Your task to perform on an android device: see tabs open on other devices in the chrome app Image 0: 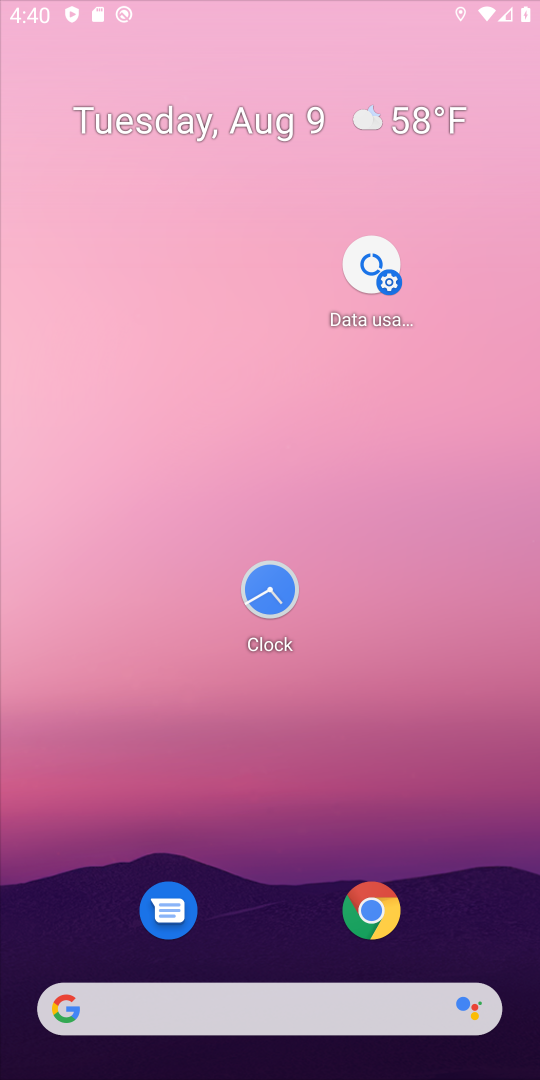
Step 0: drag from (224, 119) to (261, 80)
Your task to perform on an android device: see tabs open on other devices in the chrome app Image 1: 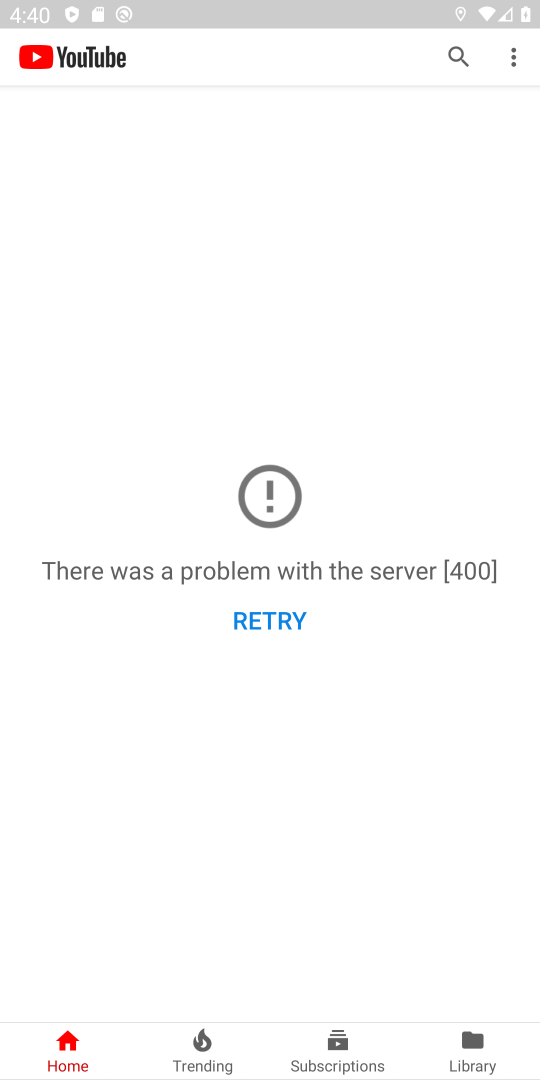
Step 1: drag from (299, 759) to (264, 128)
Your task to perform on an android device: see tabs open on other devices in the chrome app Image 2: 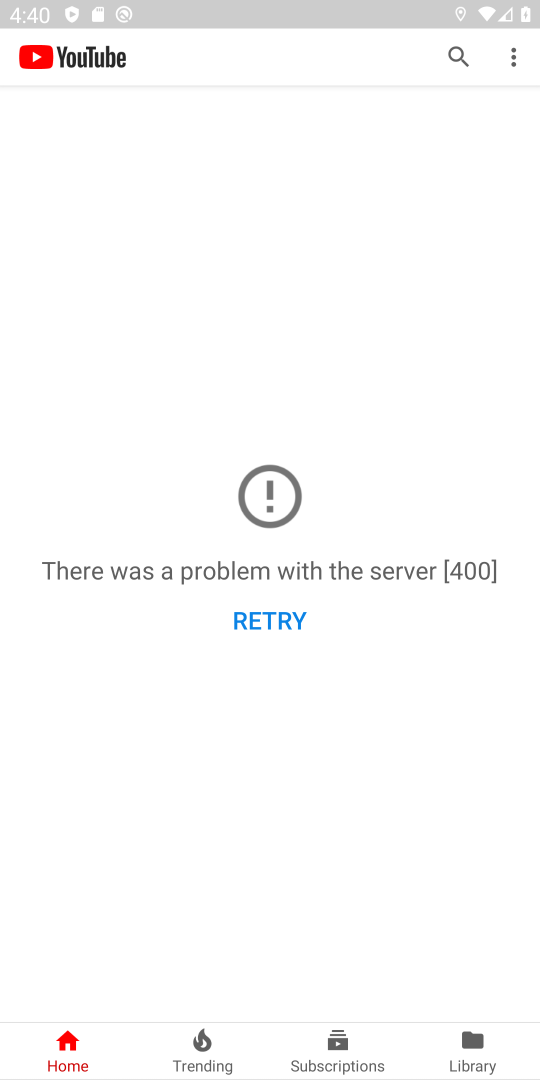
Step 2: press back button
Your task to perform on an android device: see tabs open on other devices in the chrome app Image 3: 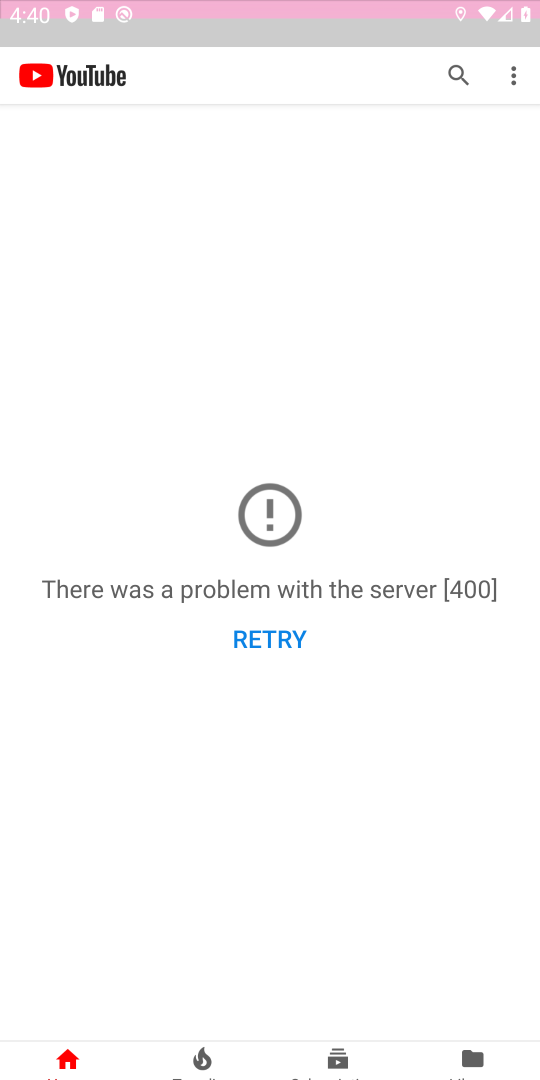
Step 3: press back button
Your task to perform on an android device: see tabs open on other devices in the chrome app Image 4: 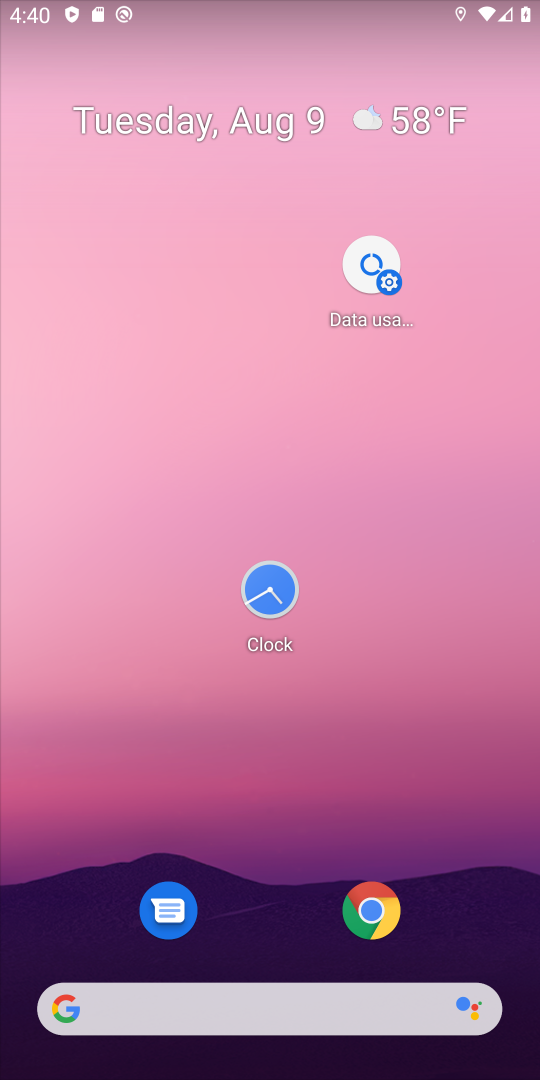
Step 4: press home button
Your task to perform on an android device: see tabs open on other devices in the chrome app Image 5: 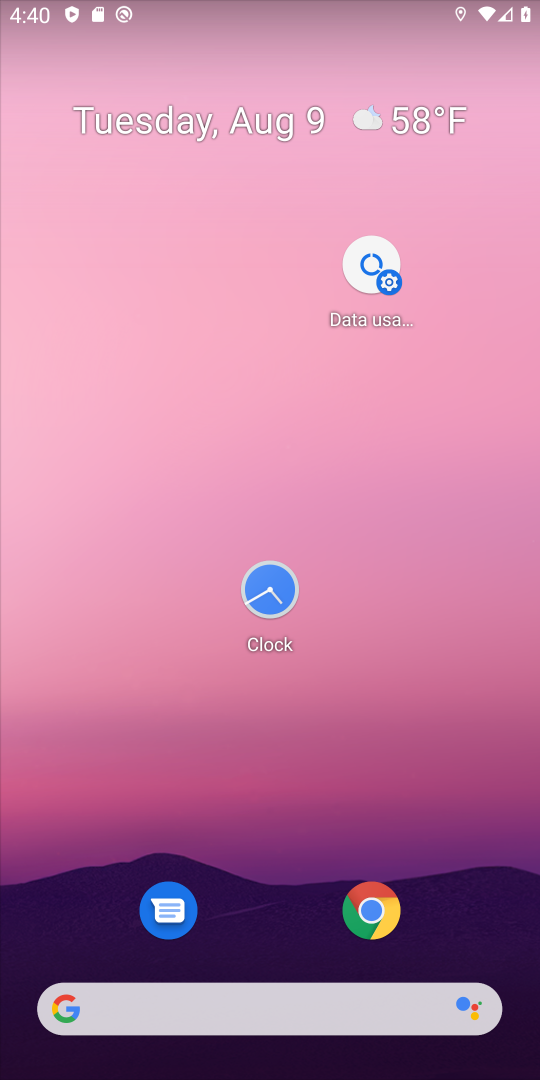
Step 5: drag from (161, 296) to (278, 248)
Your task to perform on an android device: see tabs open on other devices in the chrome app Image 6: 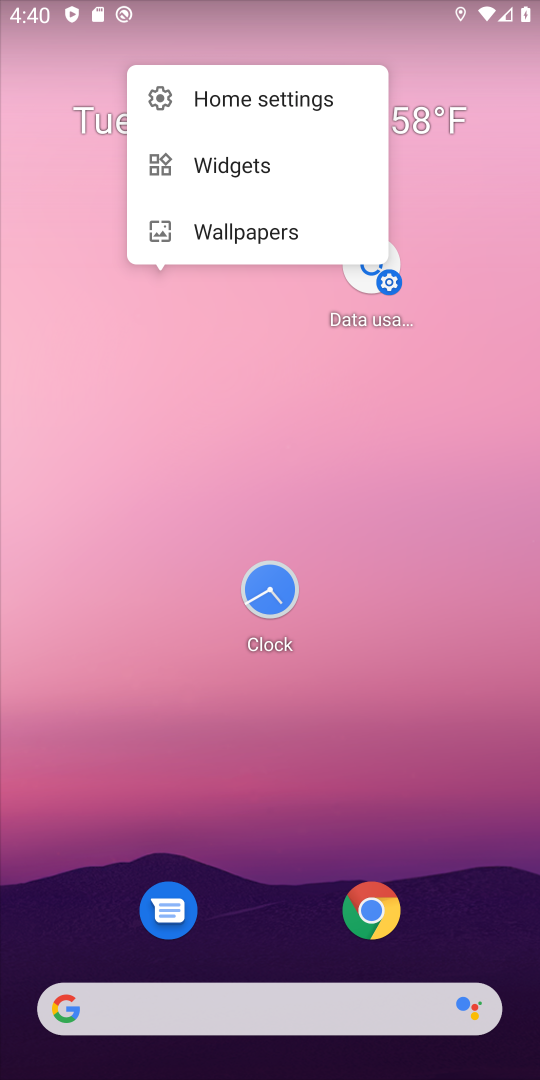
Step 6: drag from (324, 862) to (221, 374)
Your task to perform on an android device: see tabs open on other devices in the chrome app Image 7: 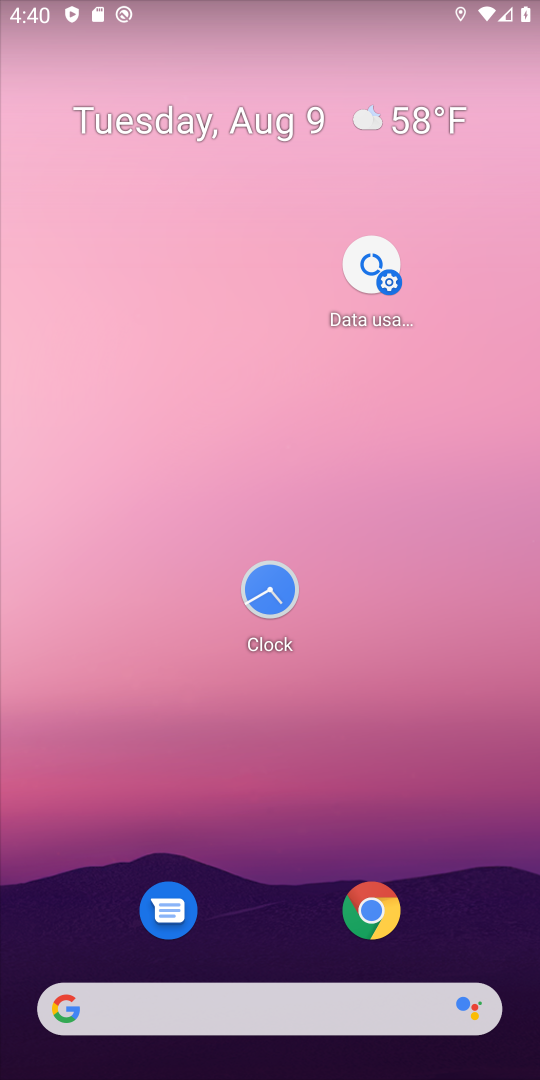
Step 7: click (223, 275)
Your task to perform on an android device: see tabs open on other devices in the chrome app Image 8: 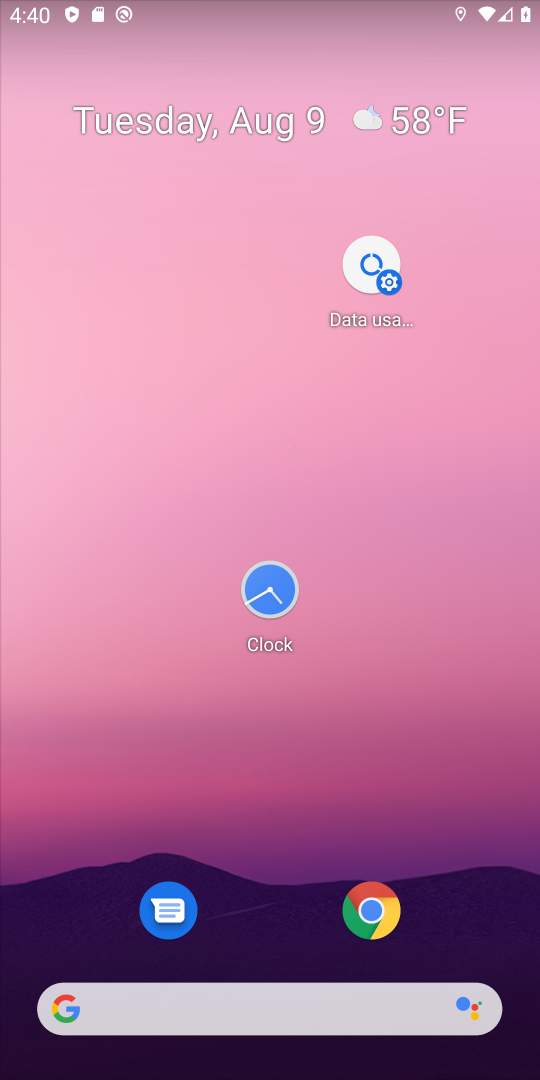
Step 8: drag from (240, 768) to (184, 100)
Your task to perform on an android device: see tabs open on other devices in the chrome app Image 9: 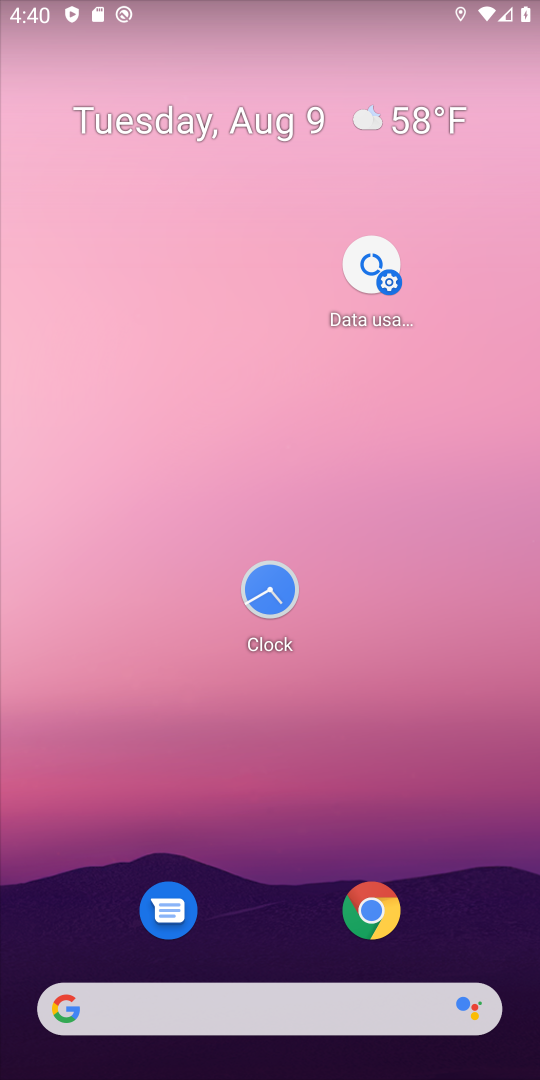
Step 9: drag from (240, 282) to (240, 168)
Your task to perform on an android device: see tabs open on other devices in the chrome app Image 10: 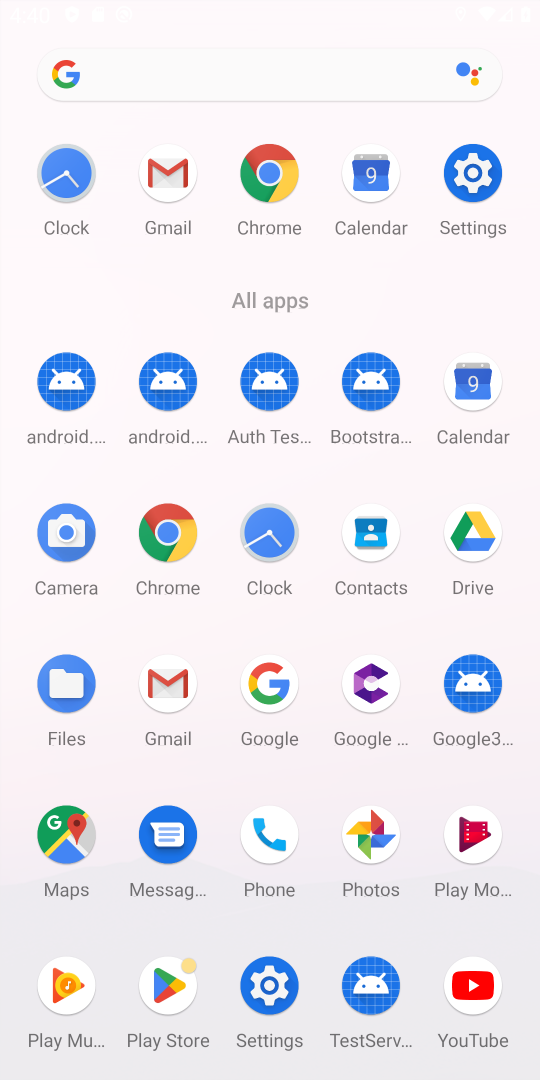
Step 10: drag from (310, 510) to (266, 72)
Your task to perform on an android device: see tabs open on other devices in the chrome app Image 11: 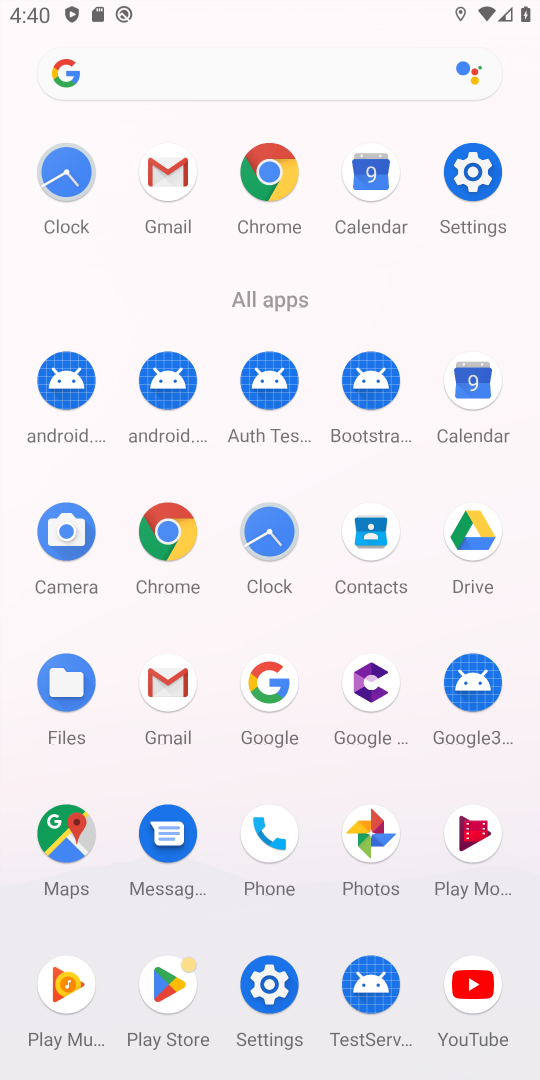
Step 11: click (236, 179)
Your task to perform on an android device: see tabs open on other devices in the chrome app Image 12: 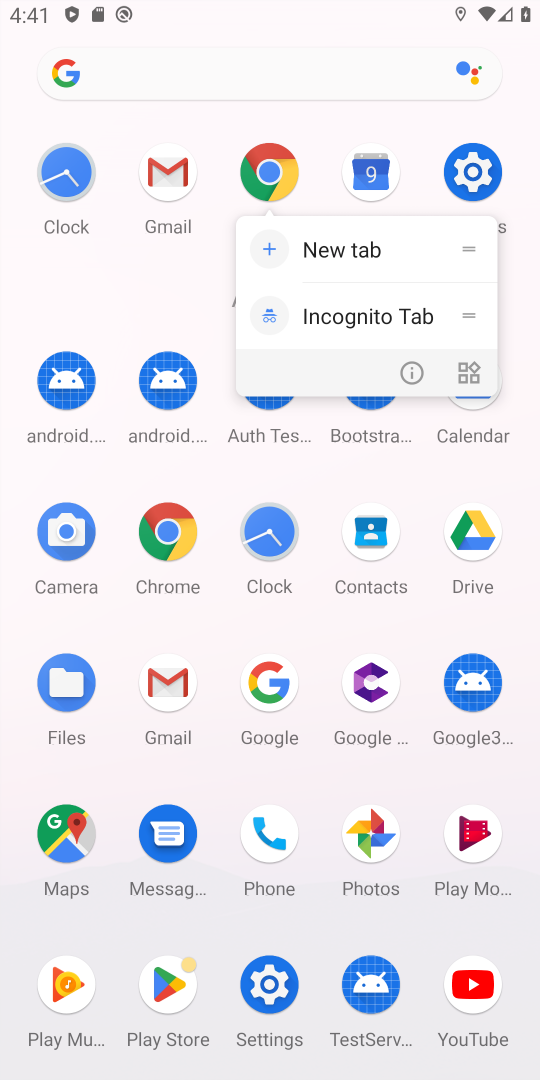
Step 12: click (269, 172)
Your task to perform on an android device: see tabs open on other devices in the chrome app Image 13: 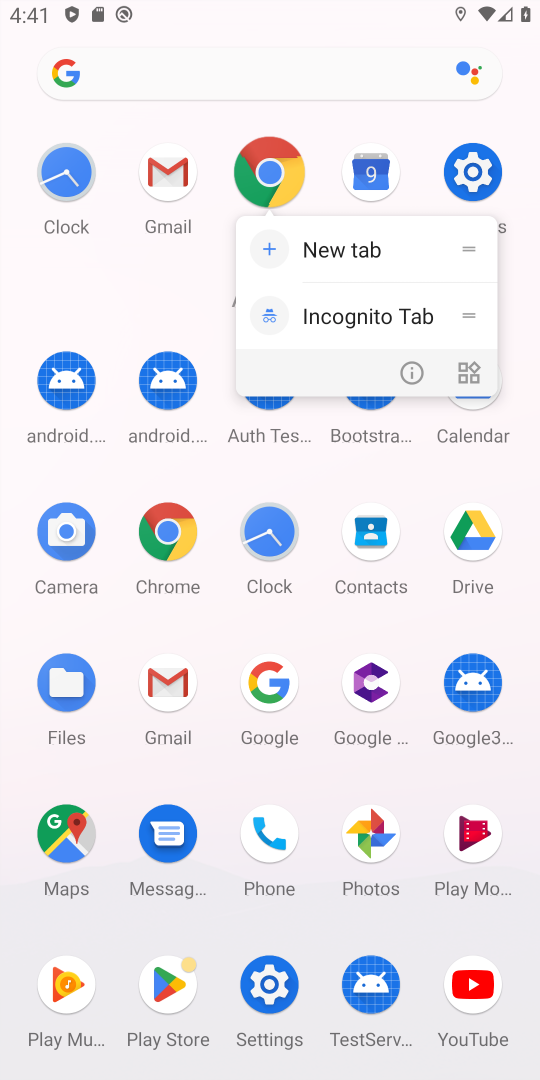
Step 13: click (269, 171)
Your task to perform on an android device: see tabs open on other devices in the chrome app Image 14: 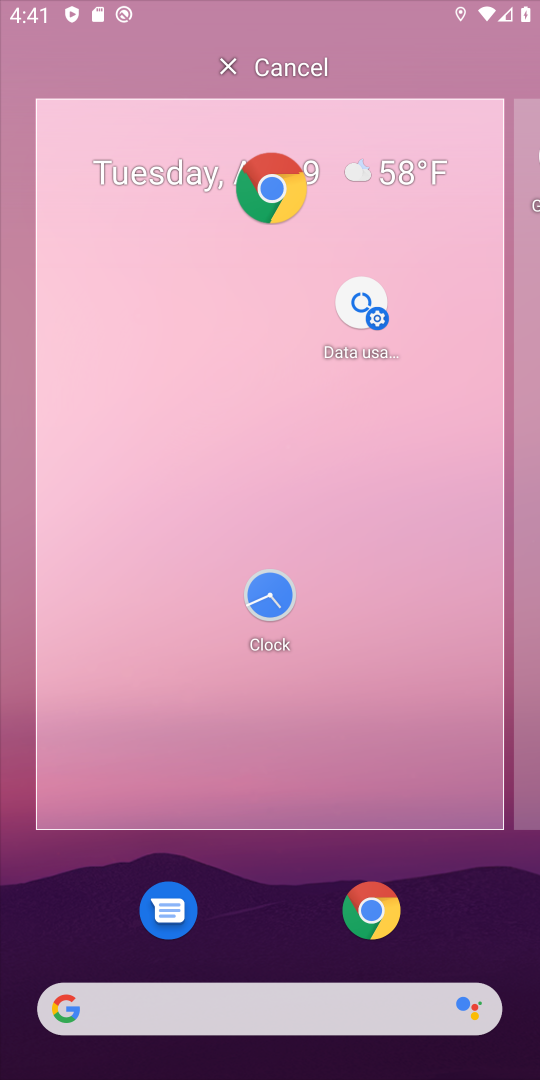
Step 14: click (277, 188)
Your task to perform on an android device: see tabs open on other devices in the chrome app Image 15: 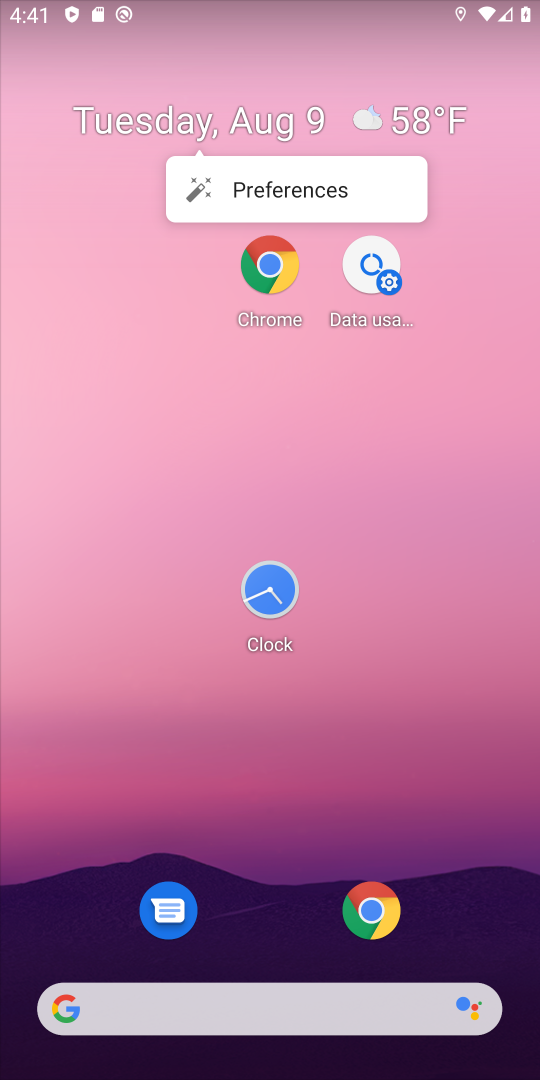
Step 15: click (273, 262)
Your task to perform on an android device: see tabs open on other devices in the chrome app Image 16: 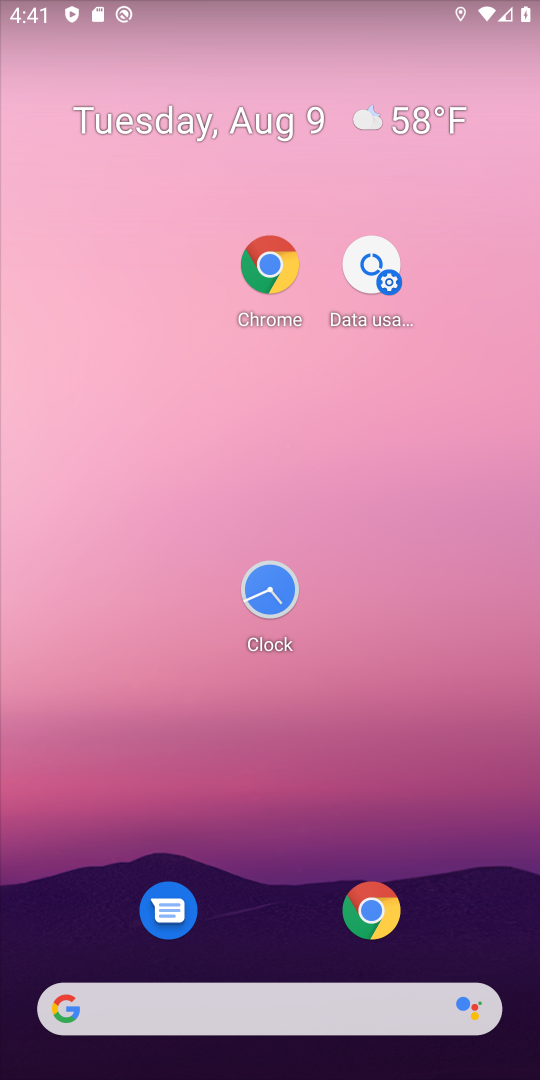
Step 16: click (269, 267)
Your task to perform on an android device: see tabs open on other devices in the chrome app Image 17: 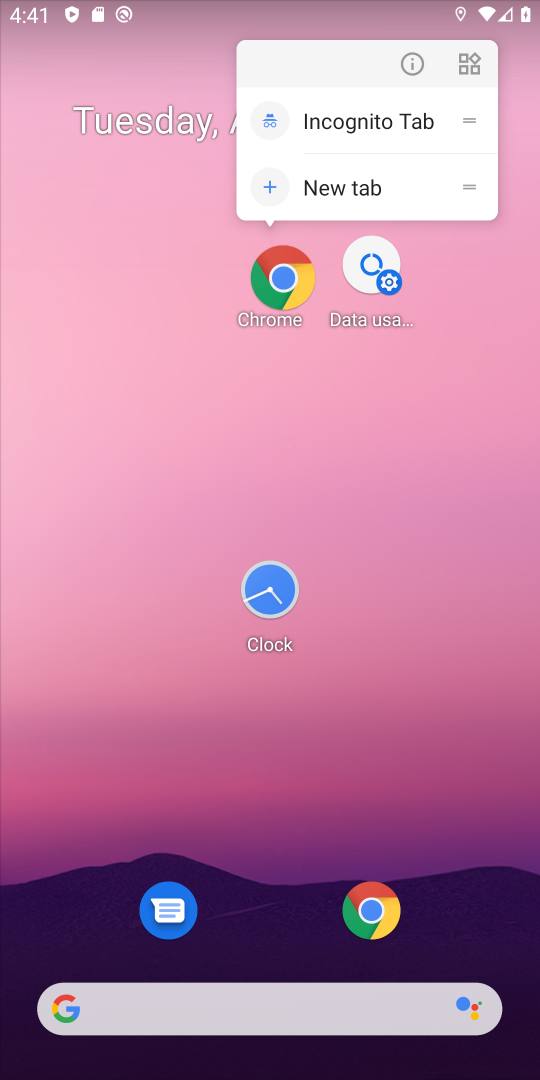
Step 17: click (280, 262)
Your task to perform on an android device: see tabs open on other devices in the chrome app Image 18: 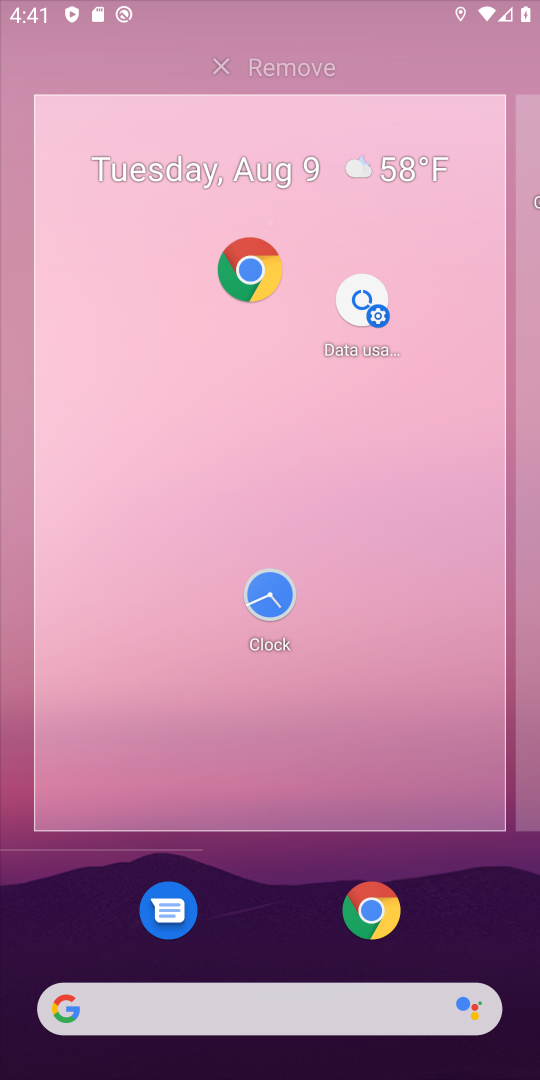
Step 18: click (292, 300)
Your task to perform on an android device: see tabs open on other devices in the chrome app Image 19: 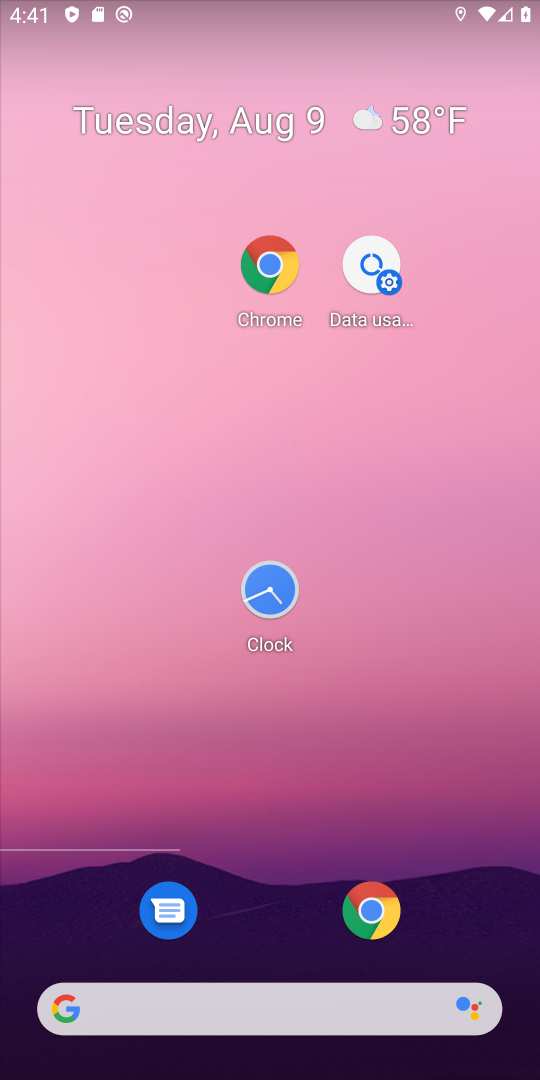
Step 19: click (292, 308)
Your task to perform on an android device: see tabs open on other devices in the chrome app Image 20: 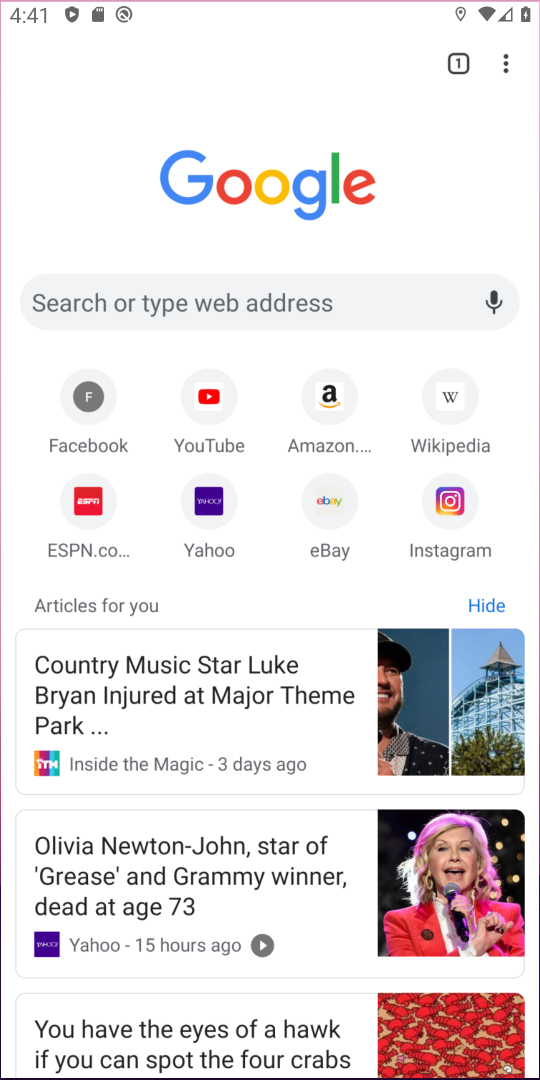
Step 20: drag from (281, 628) to (212, 42)
Your task to perform on an android device: see tabs open on other devices in the chrome app Image 21: 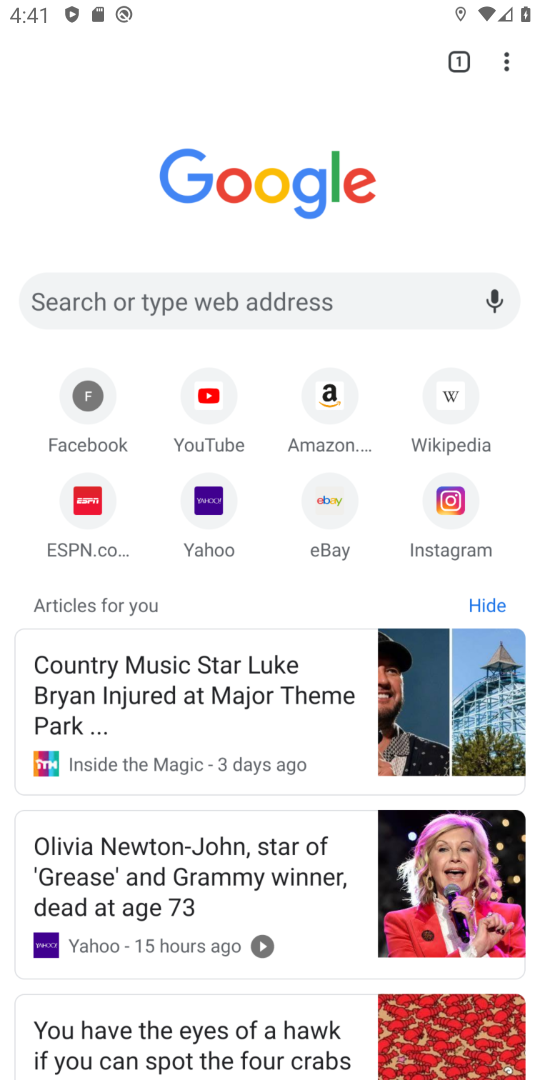
Step 21: drag from (289, 354) to (275, 145)
Your task to perform on an android device: see tabs open on other devices in the chrome app Image 22: 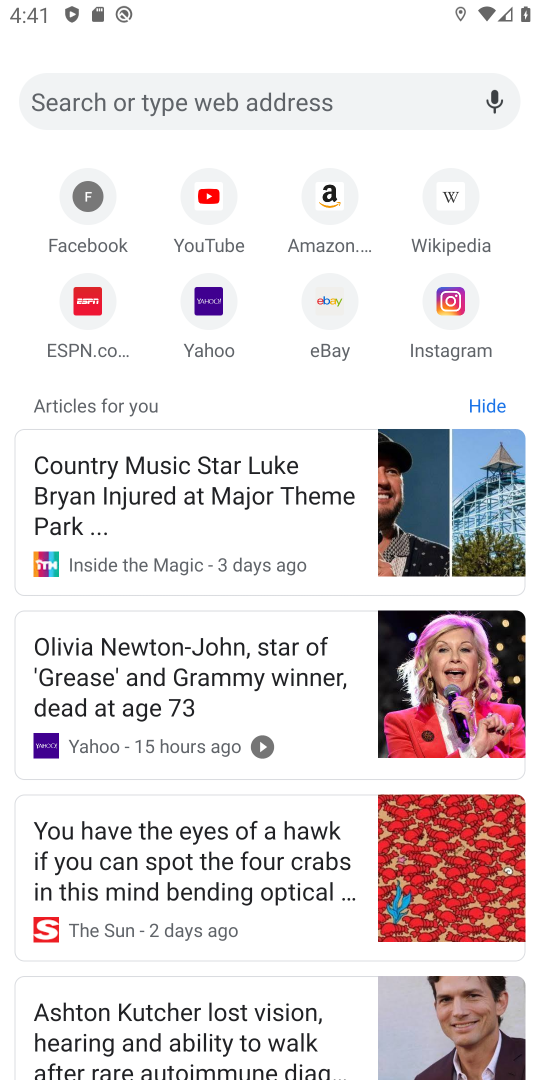
Step 22: drag from (402, 248) to (339, 756)
Your task to perform on an android device: see tabs open on other devices in the chrome app Image 23: 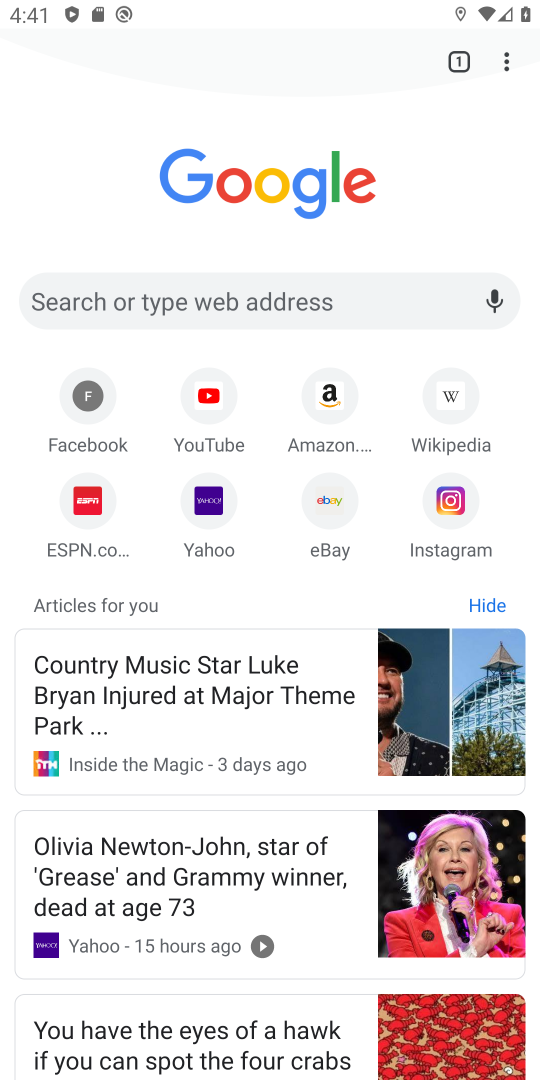
Step 23: drag from (365, 432) to (358, 838)
Your task to perform on an android device: see tabs open on other devices in the chrome app Image 24: 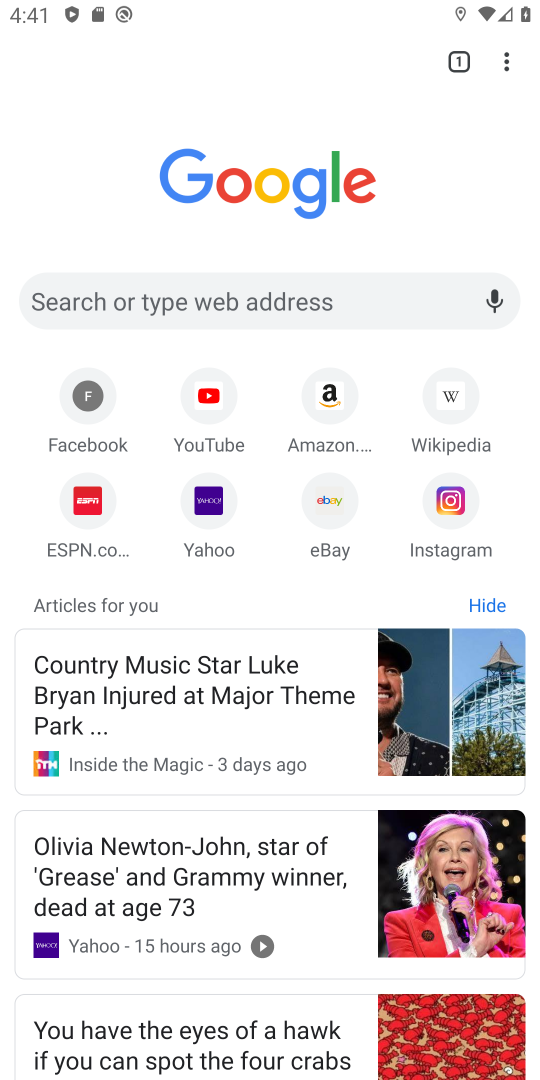
Step 24: drag from (507, 59) to (282, 512)
Your task to perform on an android device: see tabs open on other devices in the chrome app Image 25: 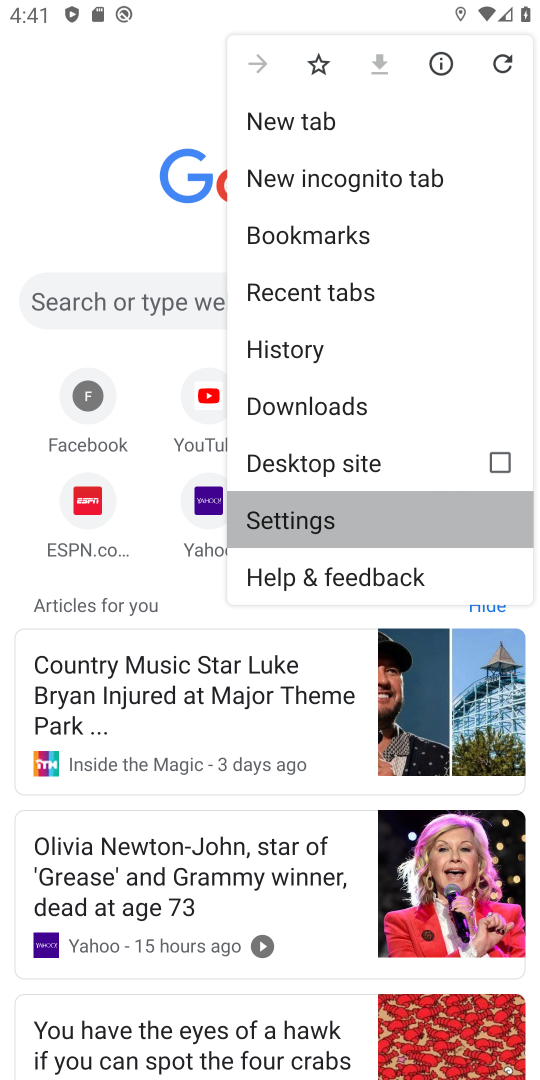
Step 25: click (284, 514)
Your task to perform on an android device: see tabs open on other devices in the chrome app Image 26: 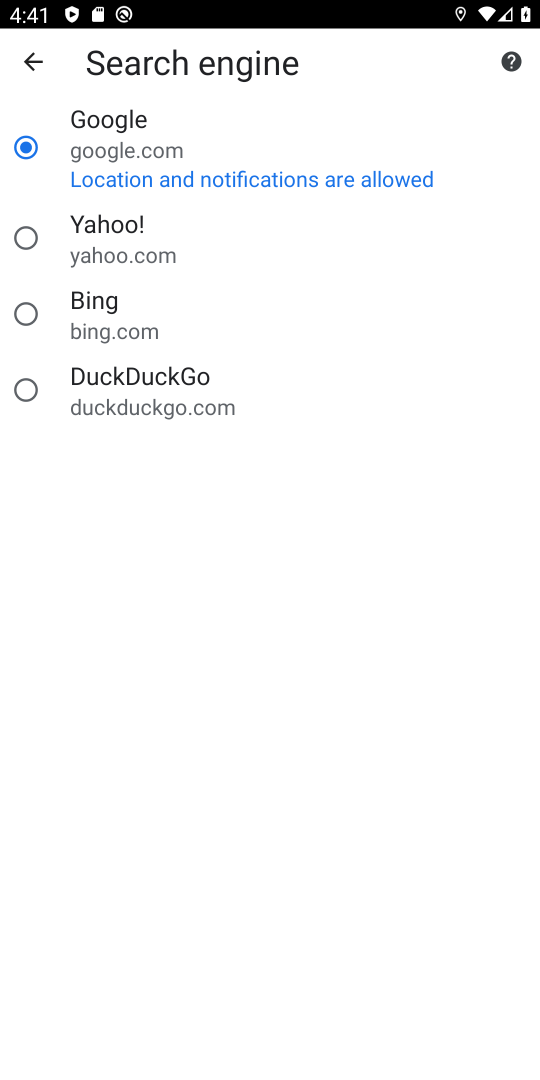
Step 26: click (50, 68)
Your task to perform on an android device: see tabs open on other devices in the chrome app Image 27: 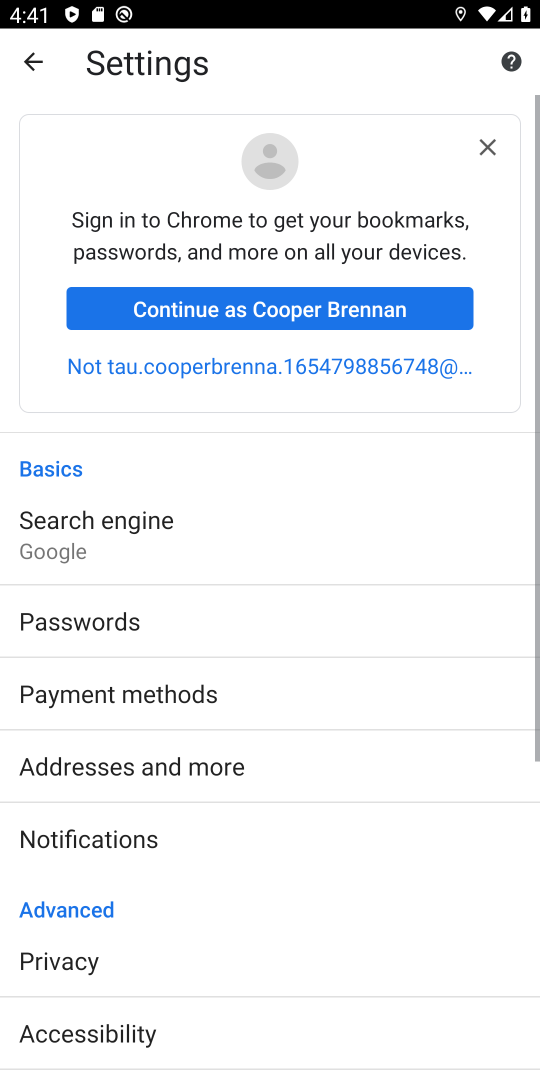
Step 27: task complete